Your task to perform on an android device: Add usb-c to usb-b to the cart on ebay.com Image 0: 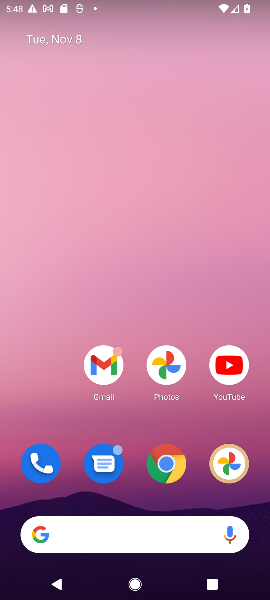
Step 0: click (155, 454)
Your task to perform on an android device: Add usb-c to usb-b to the cart on ebay.com Image 1: 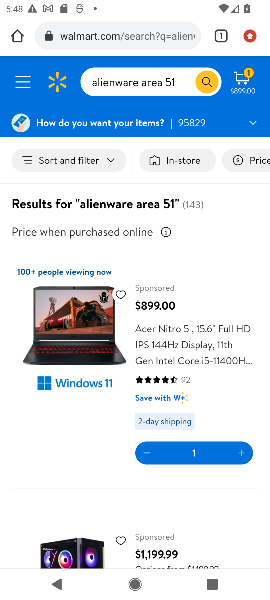
Step 1: click (131, 40)
Your task to perform on an android device: Add usb-c to usb-b to the cart on ebay.com Image 2: 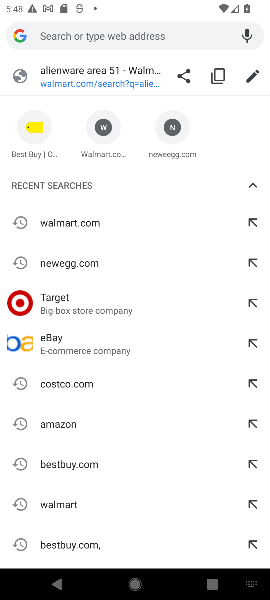
Step 2: click (51, 335)
Your task to perform on an android device: Add usb-c to usb-b to the cart on ebay.com Image 3: 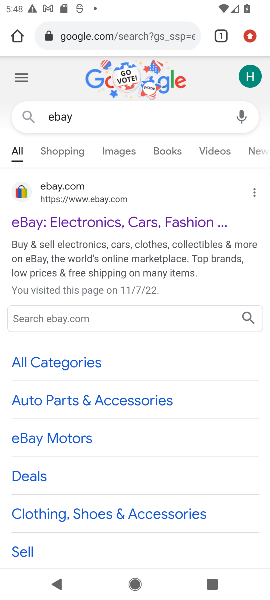
Step 3: click (95, 228)
Your task to perform on an android device: Add usb-c to usb-b to the cart on ebay.com Image 4: 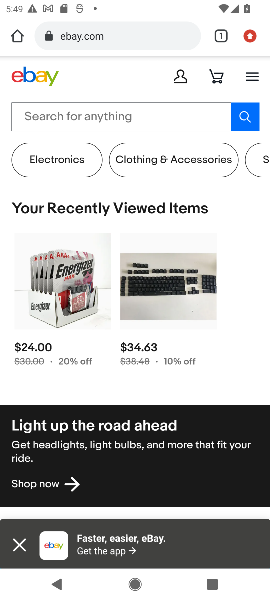
Step 4: click (42, 119)
Your task to perform on an android device: Add usb-c to usb-b to the cart on ebay.com Image 5: 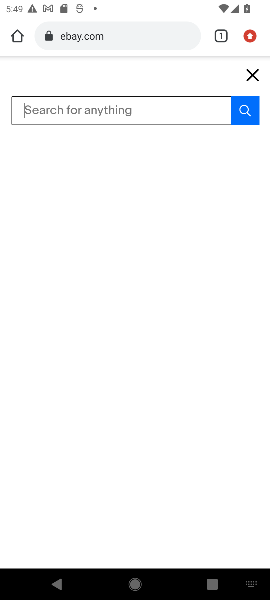
Step 5: type " usb-c to usb-b"
Your task to perform on an android device: Add usb-c to usb-b to the cart on ebay.com Image 6: 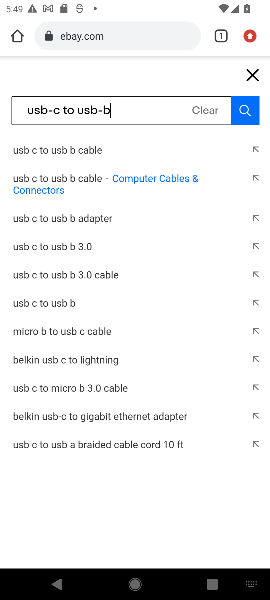
Step 6: click (251, 116)
Your task to perform on an android device: Add usb-c to usb-b to the cart on ebay.com Image 7: 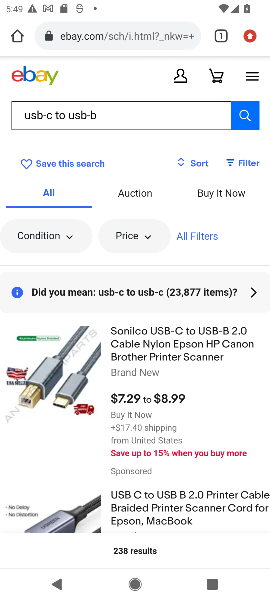
Step 7: click (159, 350)
Your task to perform on an android device: Add usb-c to usb-b to the cart on ebay.com Image 8: 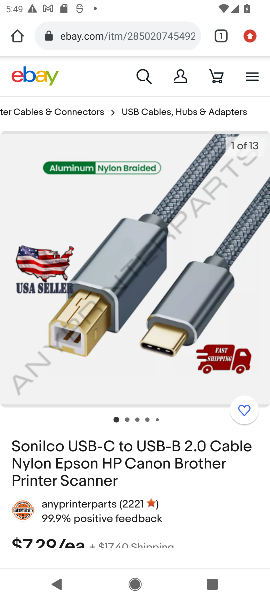
Step 8: drag from (125, 527) to (131, 131)
Your task to perform on an android device: Add usb-c to usb-b to the cart on ebay.com Image 9: 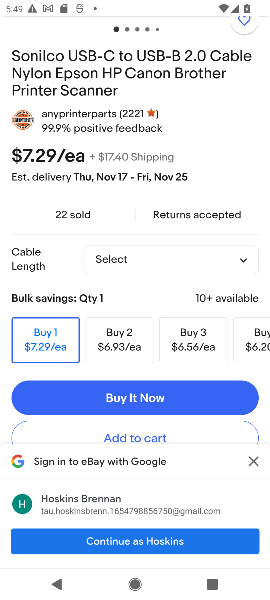
Step 9: click (75, 433)
Your task to perform on an android device: Add usb-c to usb-b to the cart on ebay.com Image 10: 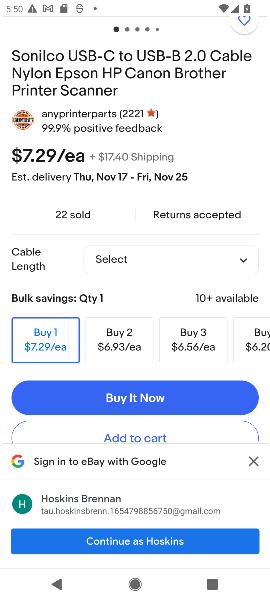
Step 10: click (95, 434)
Your task to perform on an android device: Add usb-c to usb-b to the cart on ebay.com Image 11: 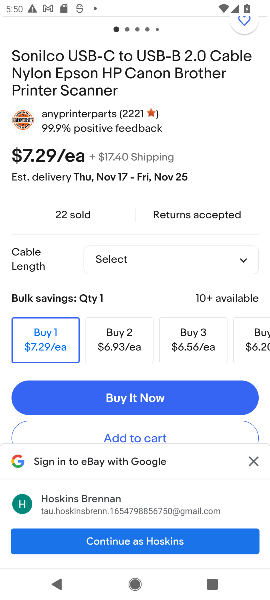
Step 11: click (120, 434)
Your task to perform on an android device: Add usb-c to usb-b to the cart on ebay.com Image 12: 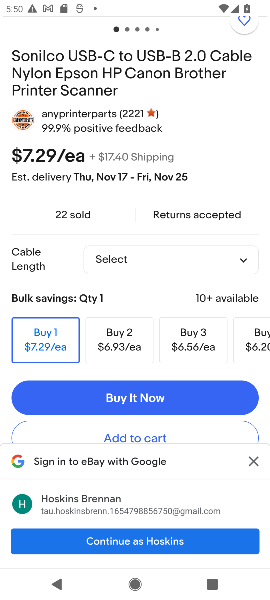
Step 12: click (165, 252)
Your task to perform on an android device: Add usb-c to usb-b to the cart on ebay.com Image 13: 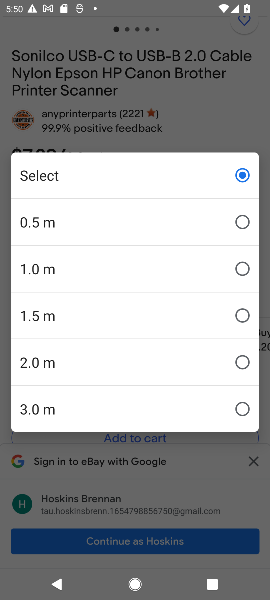
Step 13: click (156, 420)
Your task to perform on an android device: Add usb-c to usb-b to the cart on ebay.com Image 14: 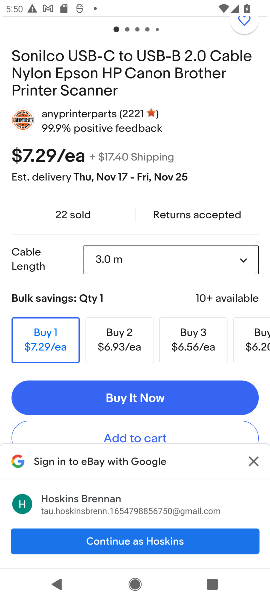
Step 14: click (155, 431)
Your task to perform on an android device: Add usb-c to usb-b to the cart on ebay.com Image 15: 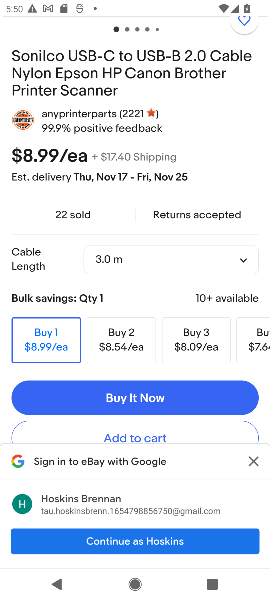
Step 15: click (155, 431)
Your task to perform on an android device: Add usb-c to usb-b to the cart on ebay.com Image 16: 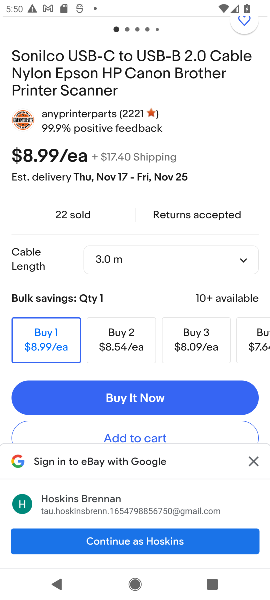
Step 16: click (160, 431)
Your task to perform on an android device: Add usb-c to usb-b to the cart on ebay.com Image 17: 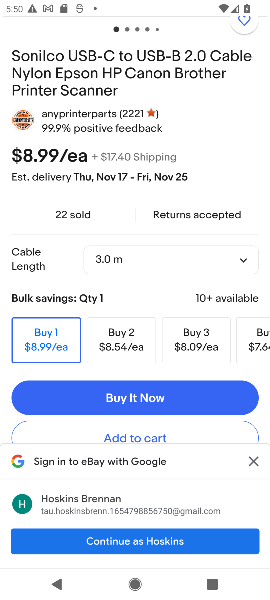
Step 17: click (159, 540)
Your task to perform on an android device: Add usb-c to usb-b to the cart on ebay.com Image 18: 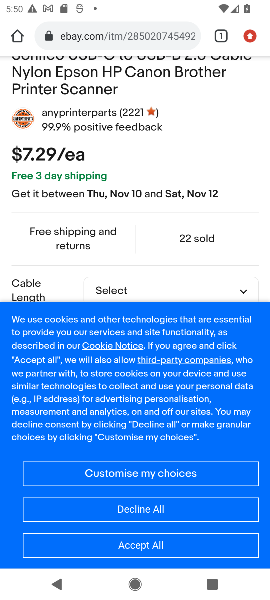
Step 18: click (106, 547)
Your task to perform on an android device: Add usb-c to usb-b to the cart on ebay.com Image 19: 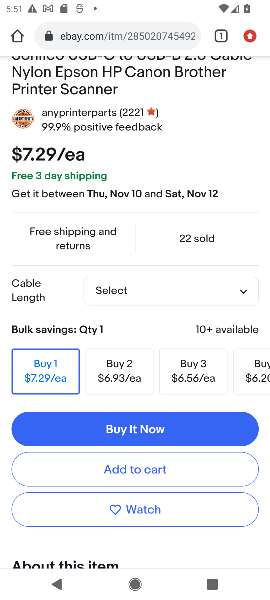
Step 19: click (143, 474)
Your task to perform on an android device: Add usb-c to usb-b to the cart on ebay.com Image 20: 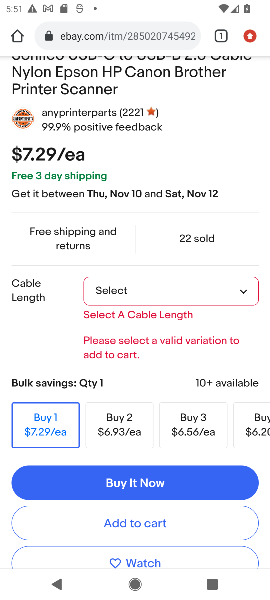
Step 20: click (182, 293)
Your task to perform on an android device: Add usb-c to usb-b to the cart on ebay.com Image 21: 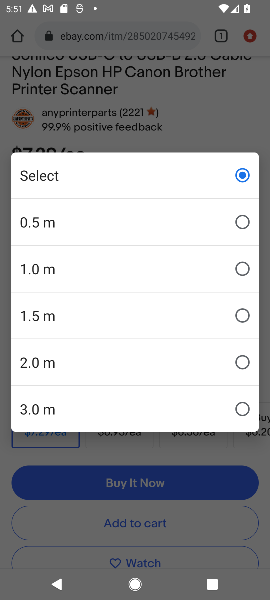
Step 21: click (182, 293)
Your task to perform on an android device: Add usb-c to usb-b to the cart on ebay.com Image 22: 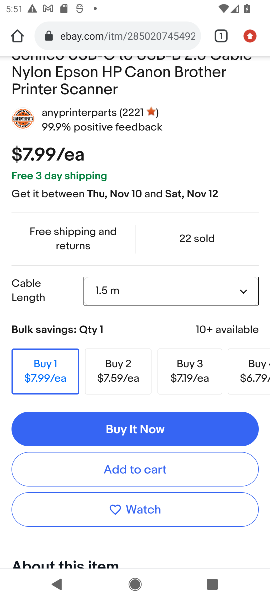
Step 22: click (39, 458)
Your task to perform on an android device: Add usb-c to usb-b to the cart on ebay.com Image 23: 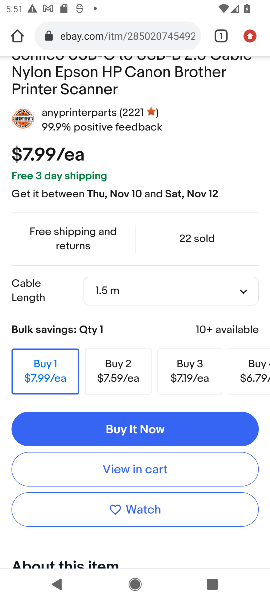
Step 23: task complete